Your task to perform on an android device: Open settings on Google Maps Image 0: 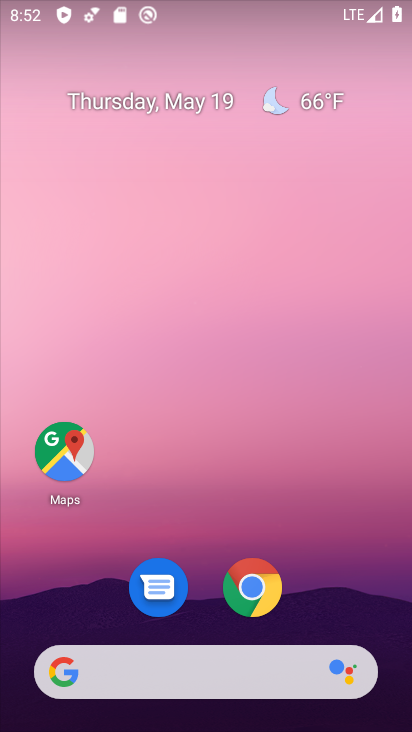
Step 0: press home button
Your task to perform on an android device: Open settings on Google Maps Image 1: 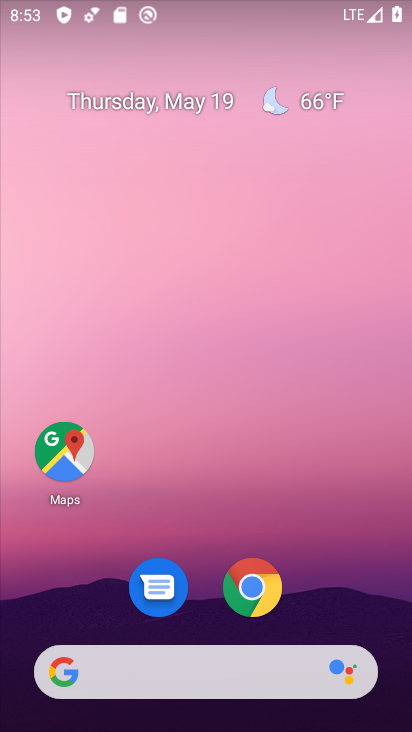
Step 1: drag from (305, 701) to (299, 283)
Your task to perform on an android device: Open settings on Google Maps Image 2: 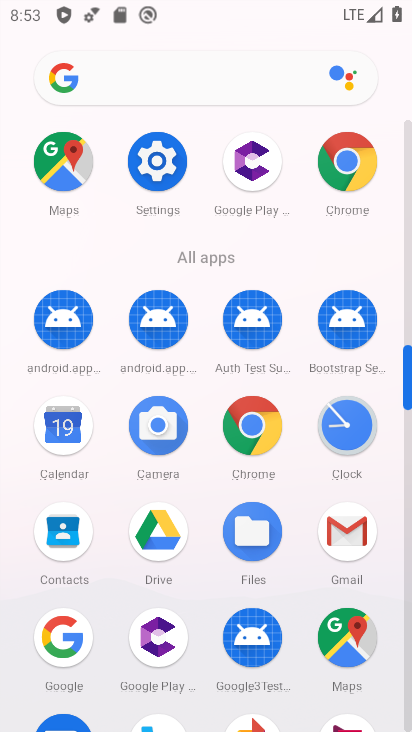
Step 2: click (49, 192)
Your task to perform on an android device: Open settings on Google Maps Image 3: 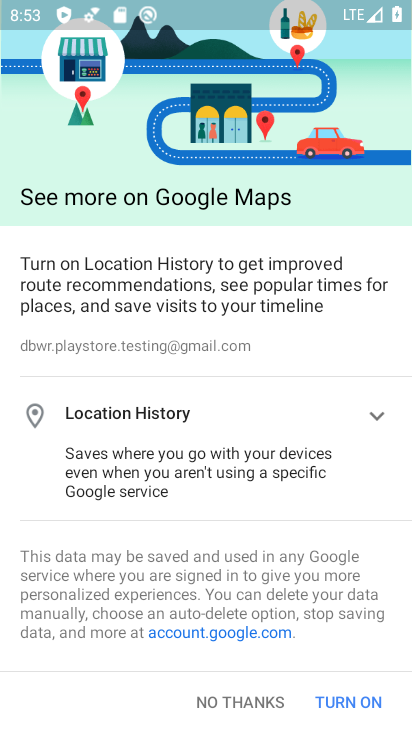
Step 3: click (263, 711)
Your task to perform on an android device: Open settings on Google Maps Image 4: 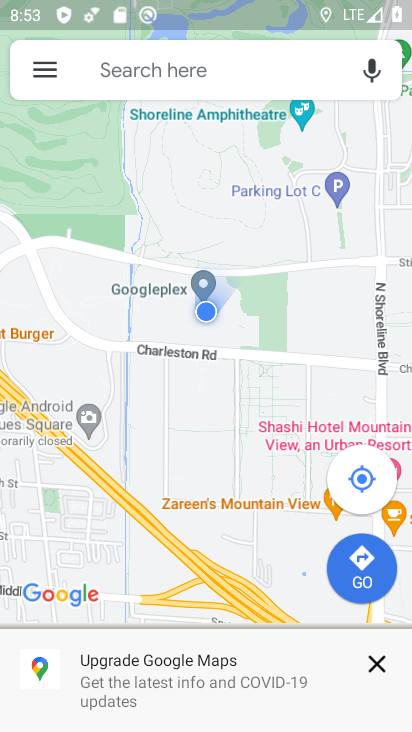
Step 4: click (393, 665)
Your task to perform on an android device: Open settings on Google Maps Image 5: 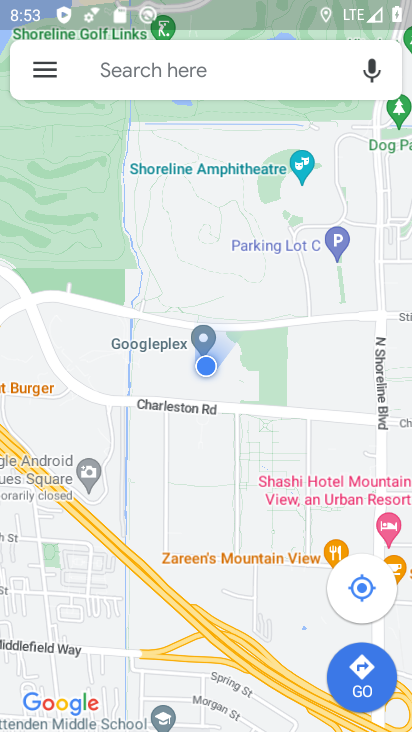
Step 5: task complete